Your task to perform on an android device: open sync settings in chrome Image 0: 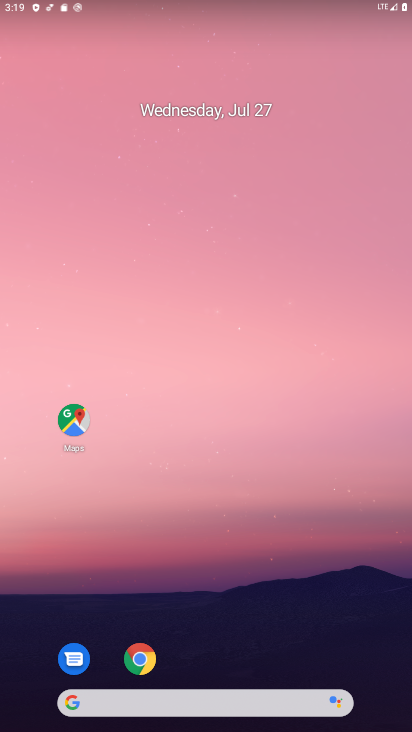
Step 0: click (150, 657)
Your task to perform on an android device: open sync settings in chrome Image 1: 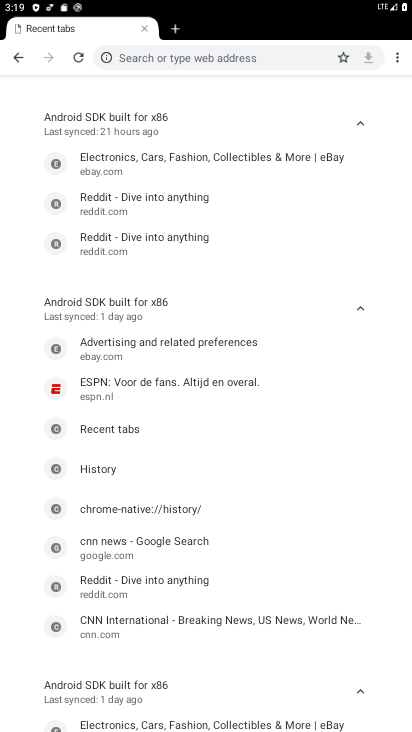
Step 1: drag from (399, 57) to (296, 258)
Your task to perform on an android device: open sync settings in chrome Image 2: 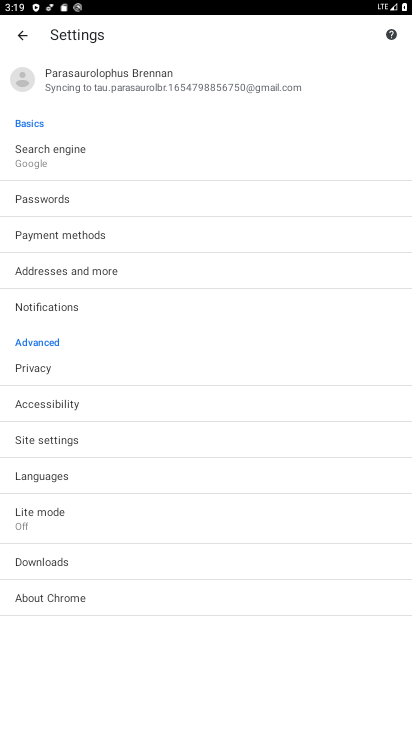
Step 2: click (125, 81)
Your task to perform on an android device: open sync settings in chrome Image 3: 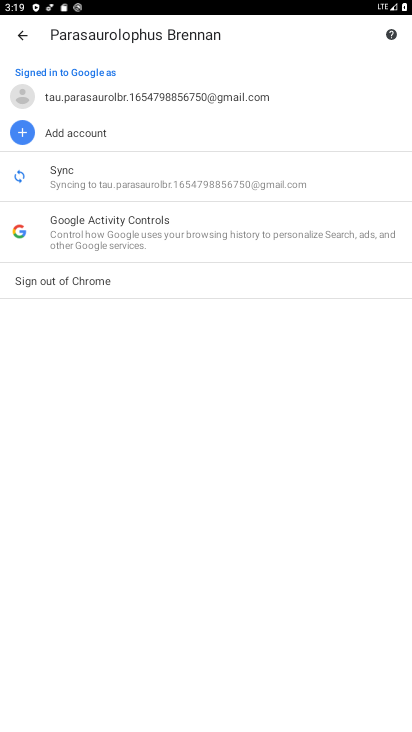
Step 3: click (105, 182)
Your task to perform on an android device: open sync settings in chrome Image 4: 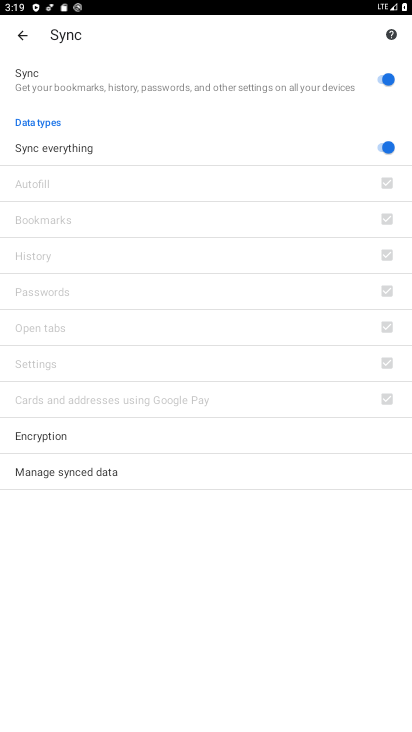
Step 4: task complete